Your task to perform on an android device: open app "Reddit" Image 0: 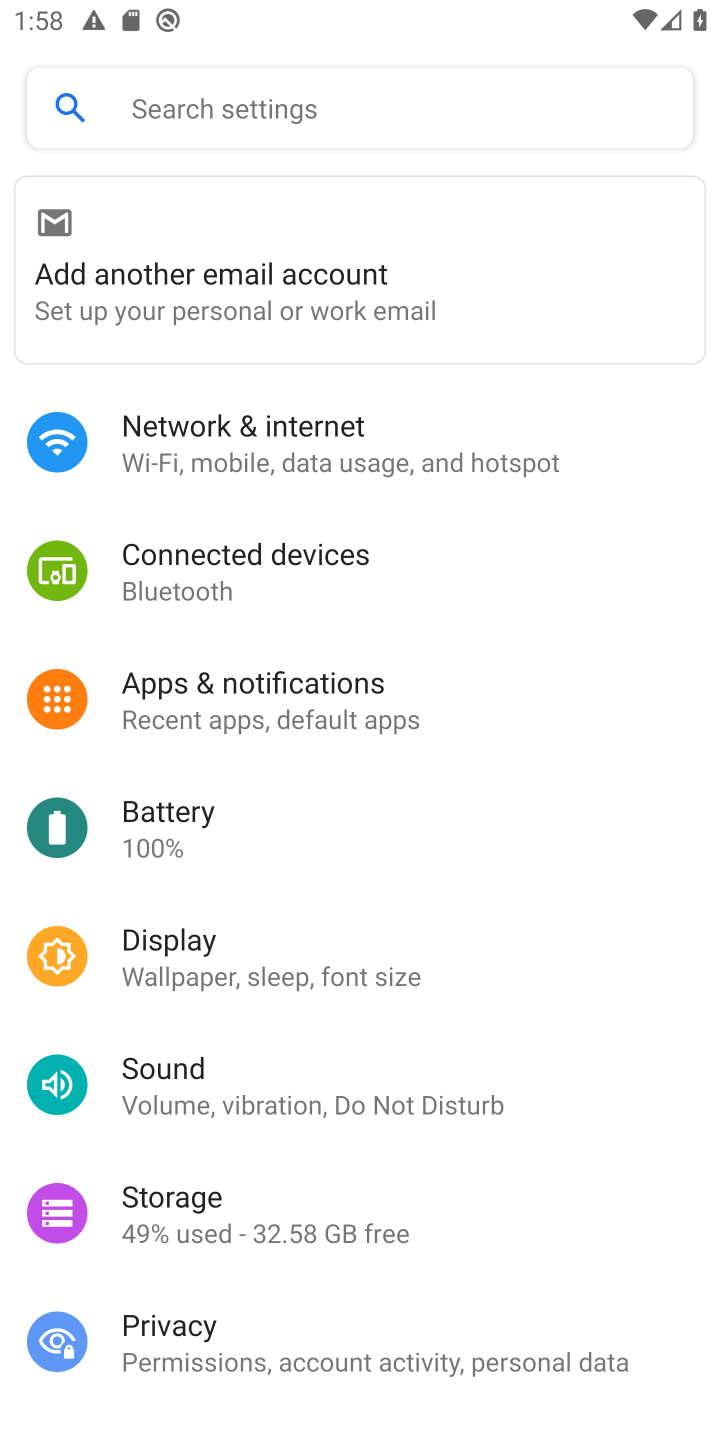
Step 0: press home button
Your task to perform on an android device: open app "Reddit" Image 1: 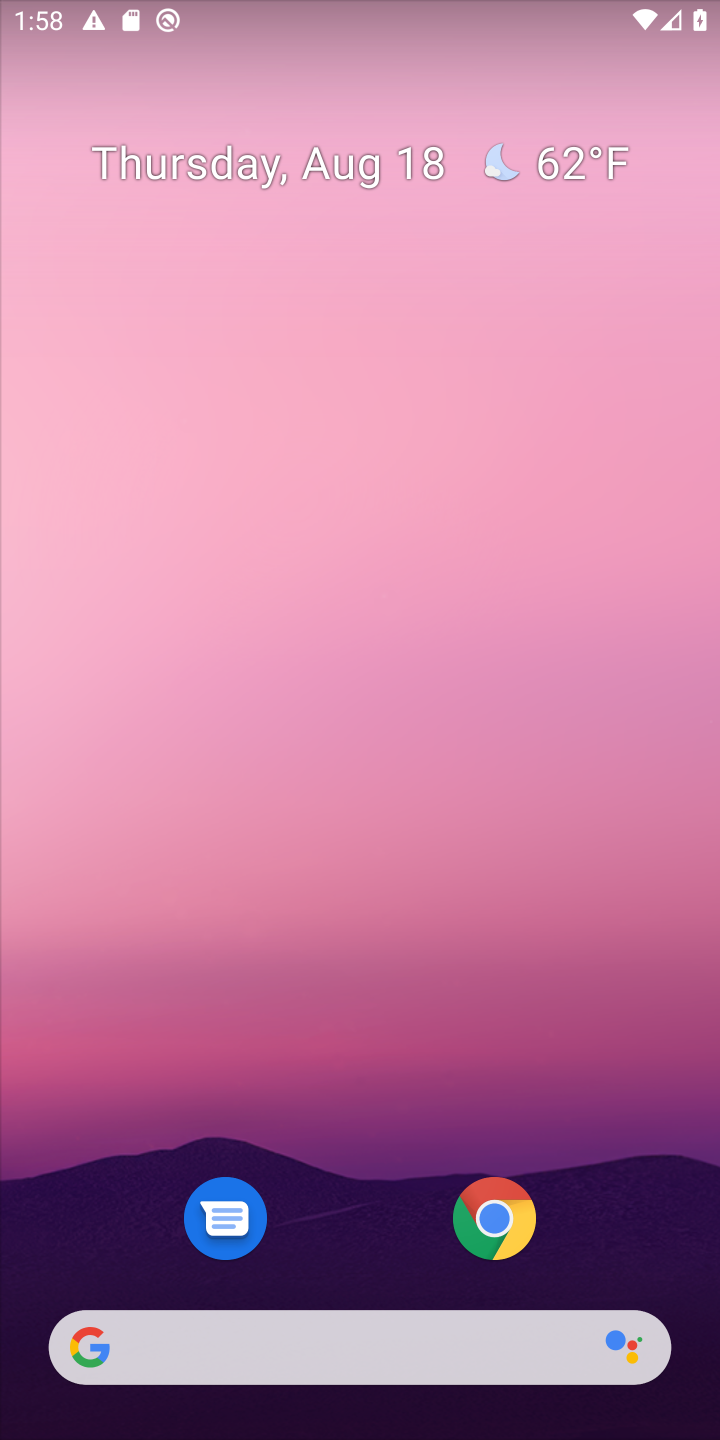
Step 1: drag from (378, 1164) to (401, 394)
Your task to perform on an android device: open app "Reddit" Image 2: 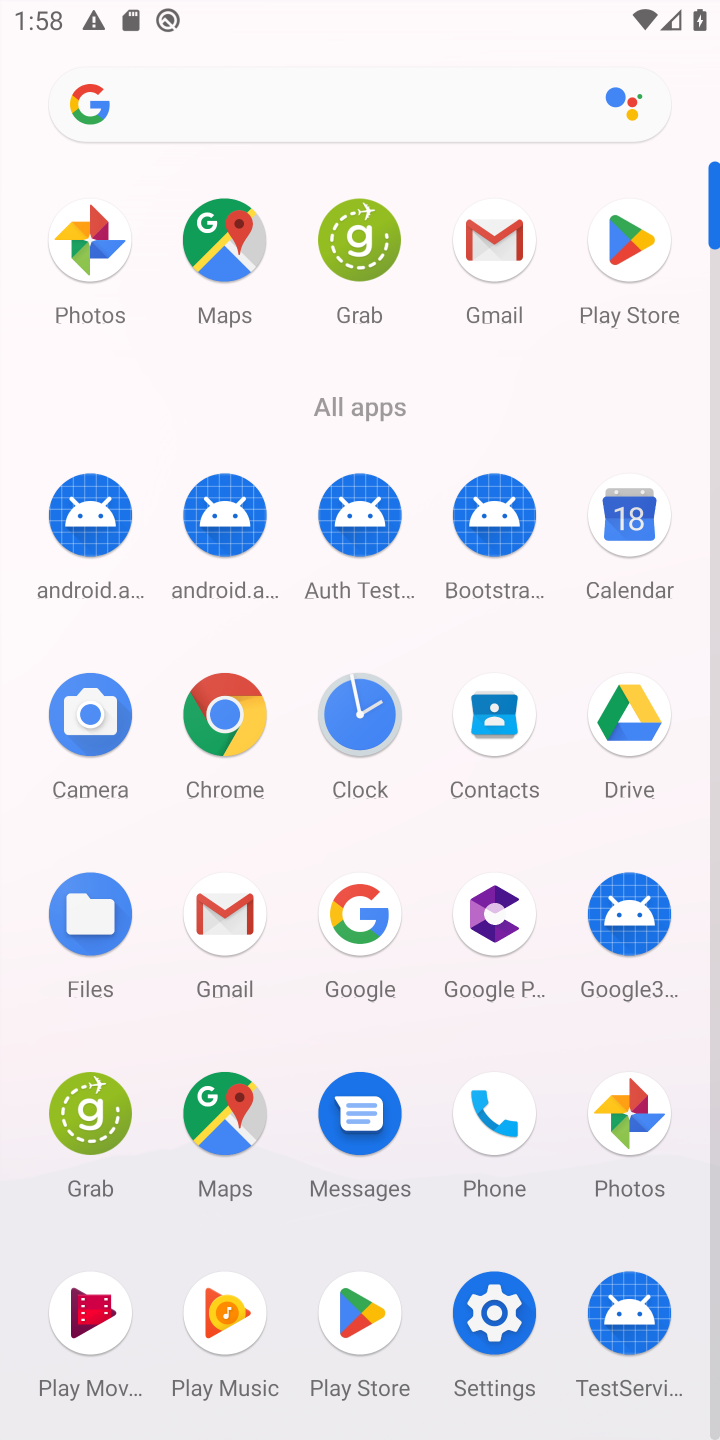
Step 2: click (660, 247)
Your task to perform on an android device: open app "Reddit" Image 3: 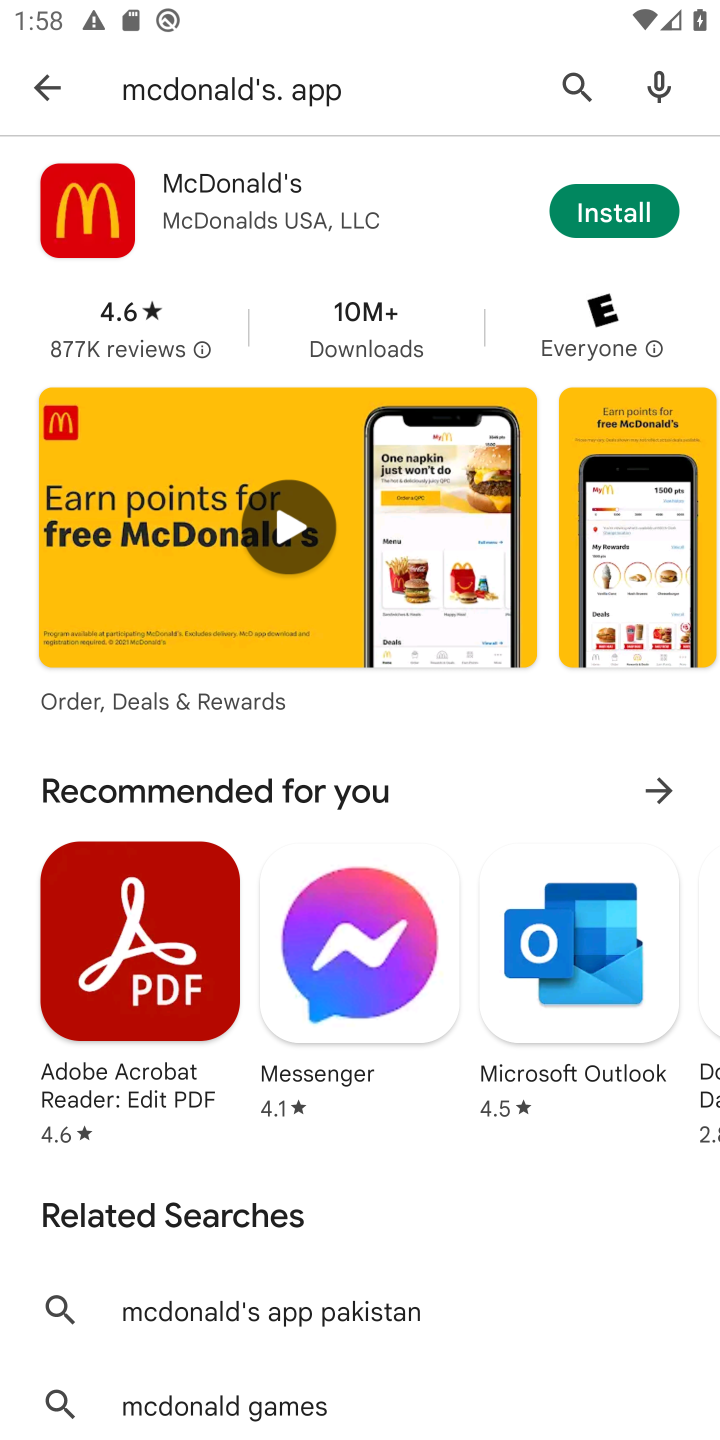
Step 3: click (579, 96)
Your task to perform on an android device: open app "Reddit" Image 4: 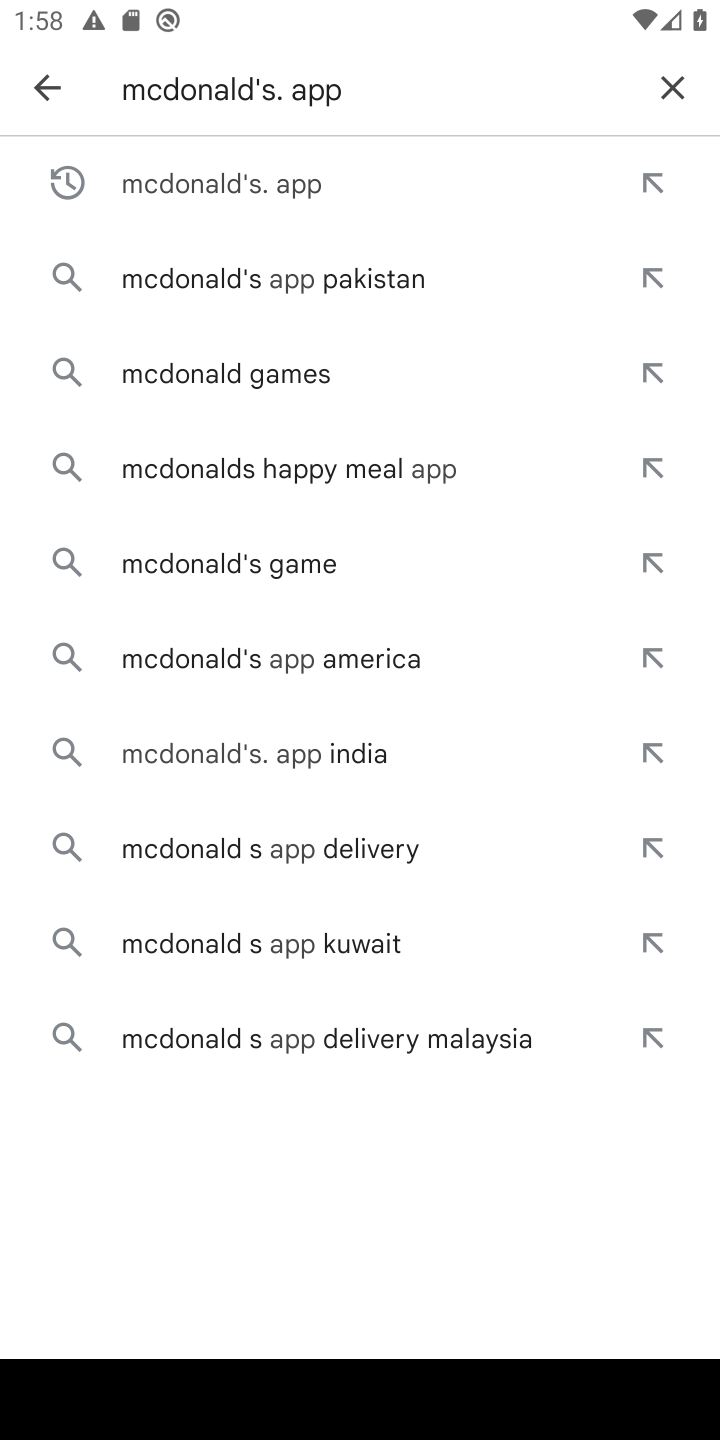
Step 4: click (653, 83)
Your task to perform on an android device: open app "Reddit" Image 5: 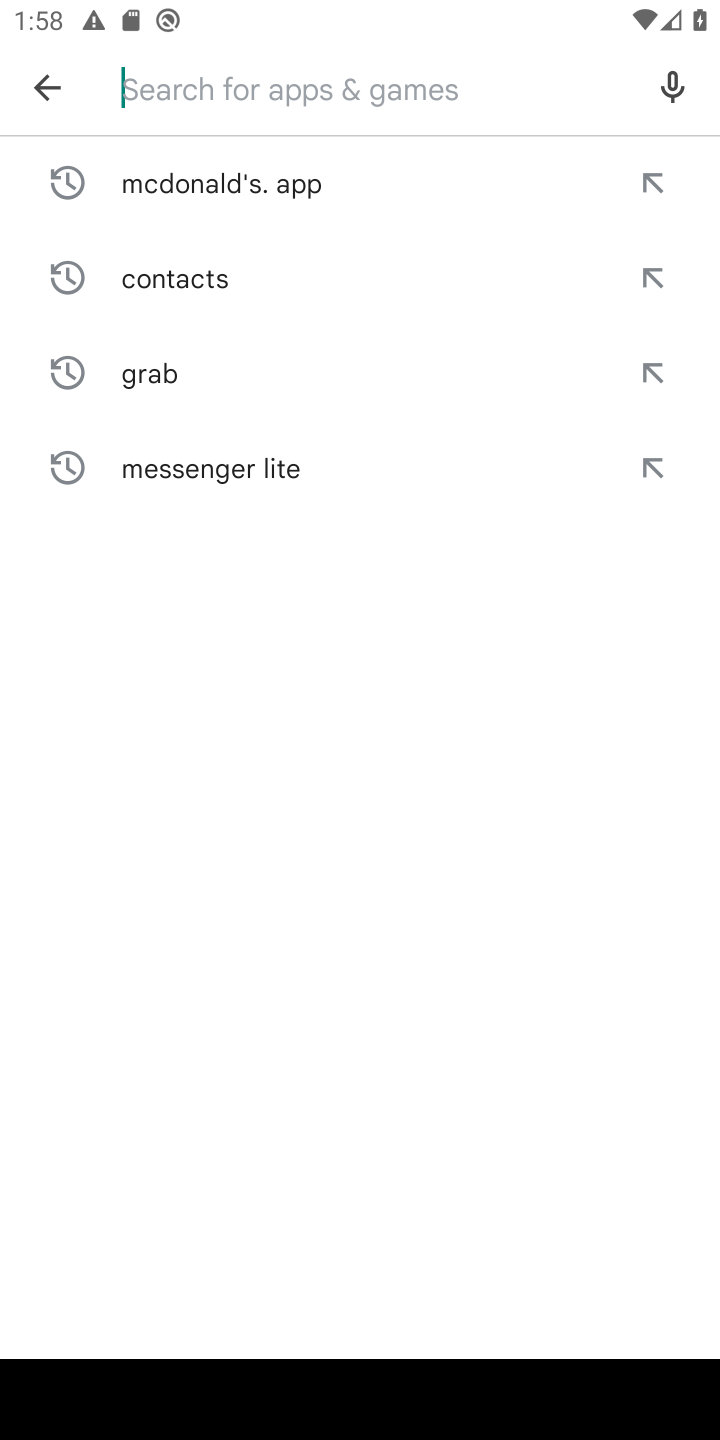
Step 5: type "Reddit"
Your task to perform on an android device: open app "Reddit" Image 6: 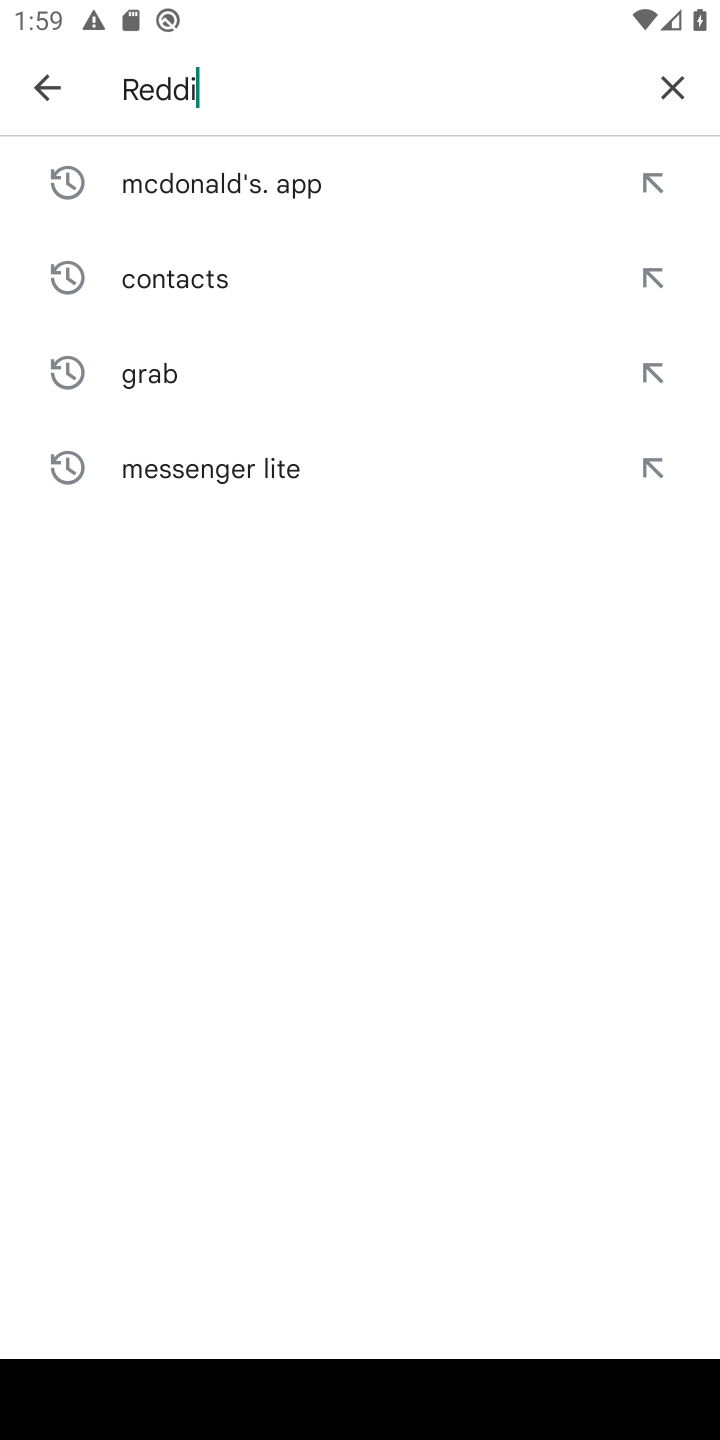
Step 6: type ""
Your task to perform on an android device: open app "Reddit" Image 7: 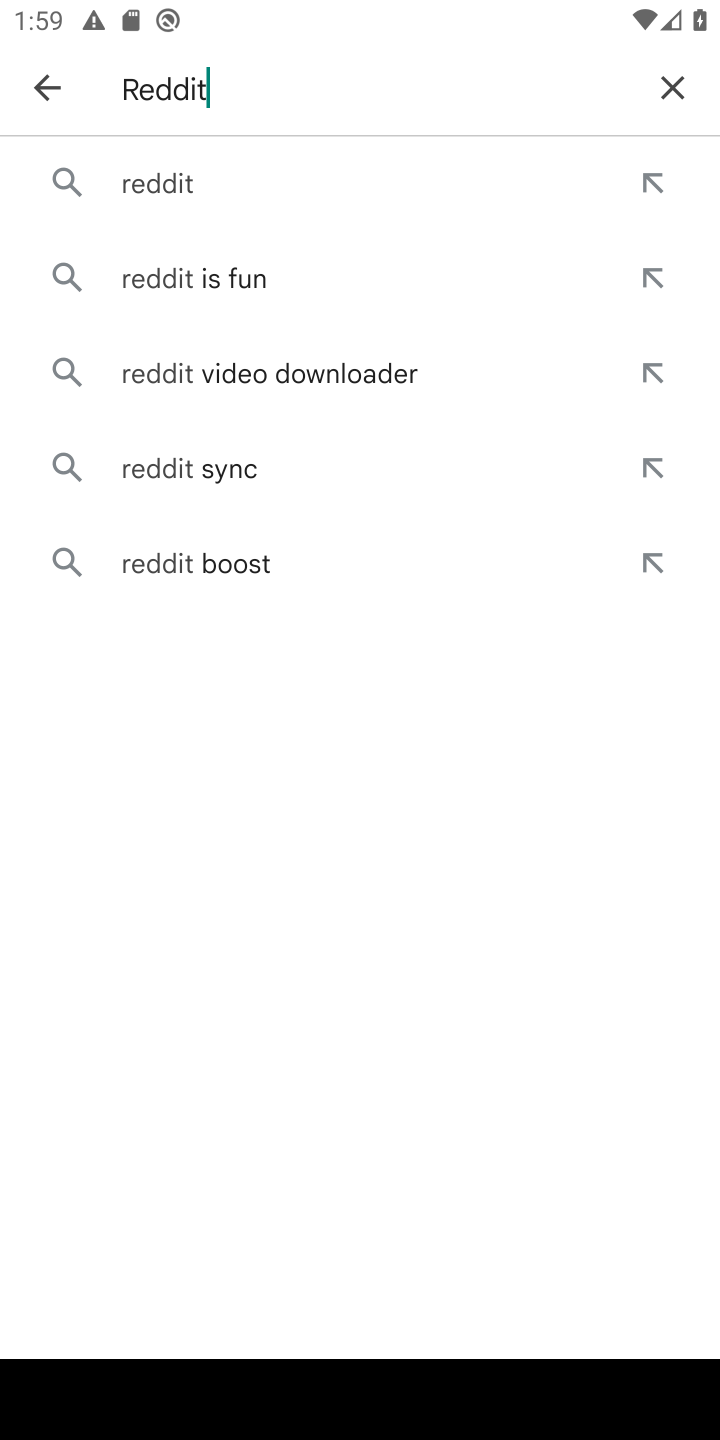
Step 7: click (289, 167)
Your task to perform on an android device: open app "Reddit" Image 8: 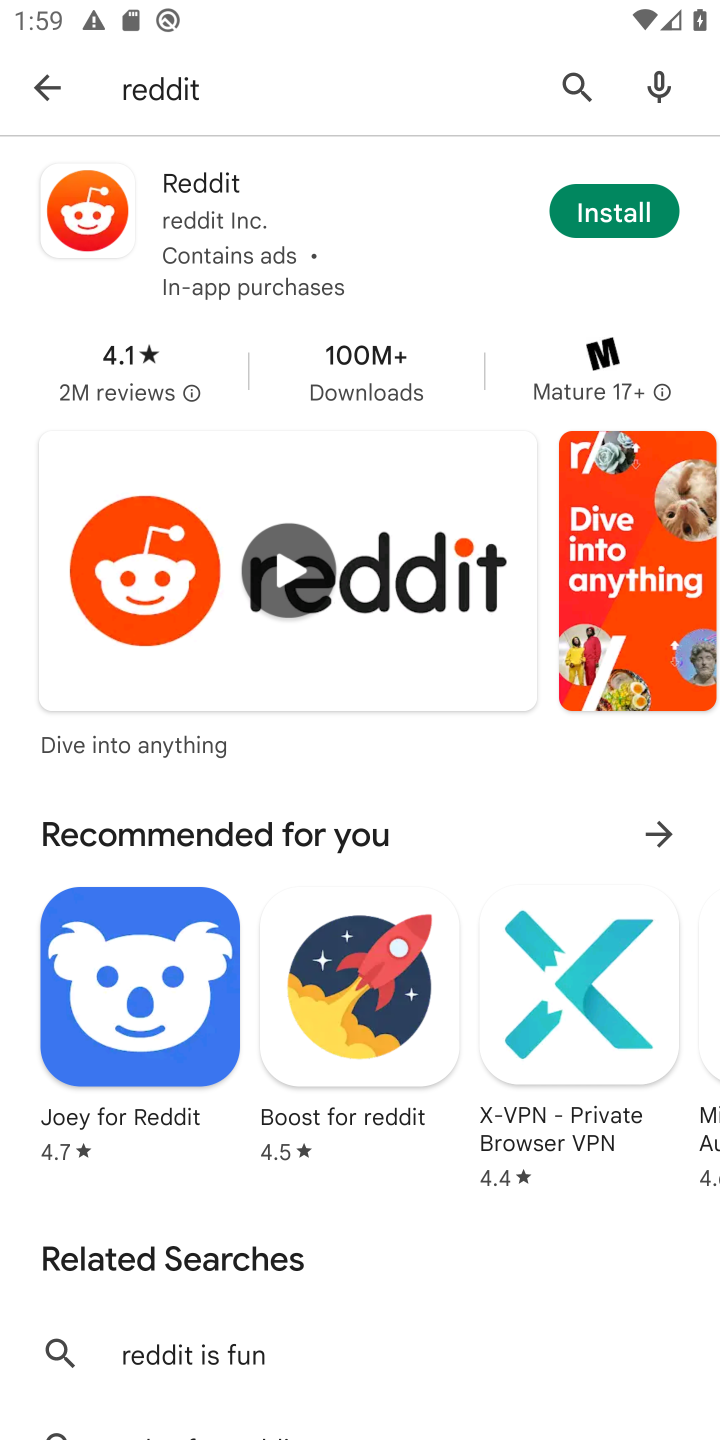
Step 8: task complete